Your task to perform on an android device: Go to battery settings Image 0: 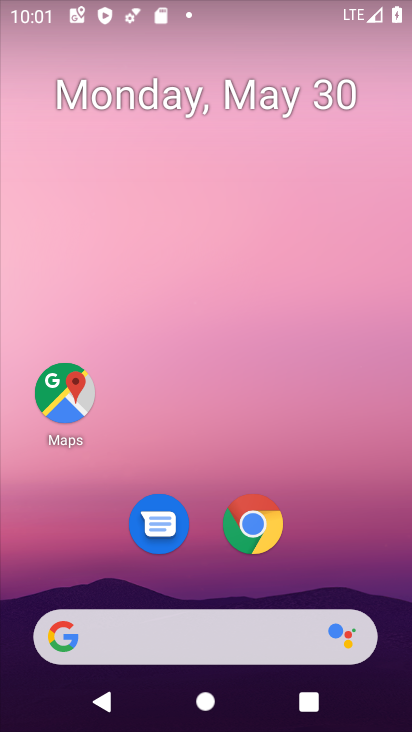
Step 0: drag from (219, 426) to (290, 0)
Your task to perform on an android device: Go to battery settings Image 1: 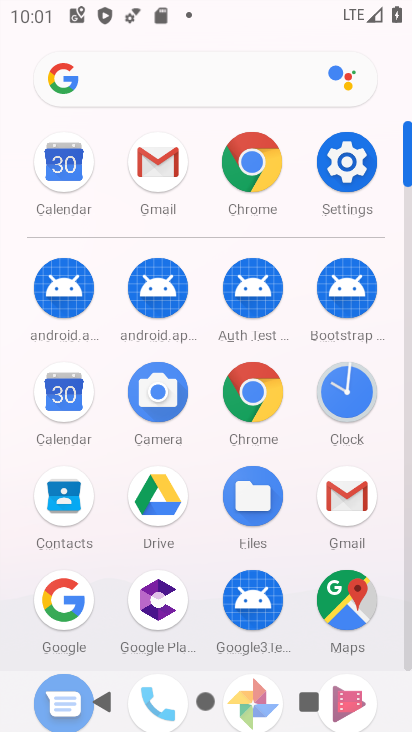
Step 1: click (344, 161)
Your task to perform on an android device: Go to battery settings Image 2: 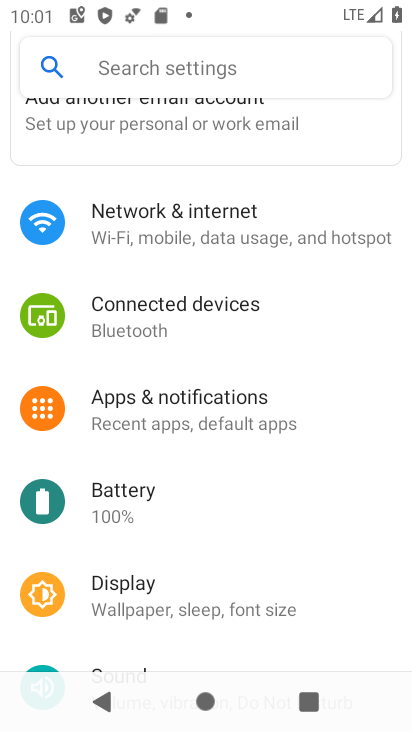
Step 2: click (176, 469)
Your task to perform on an android device: Go to battery settings Image 3: 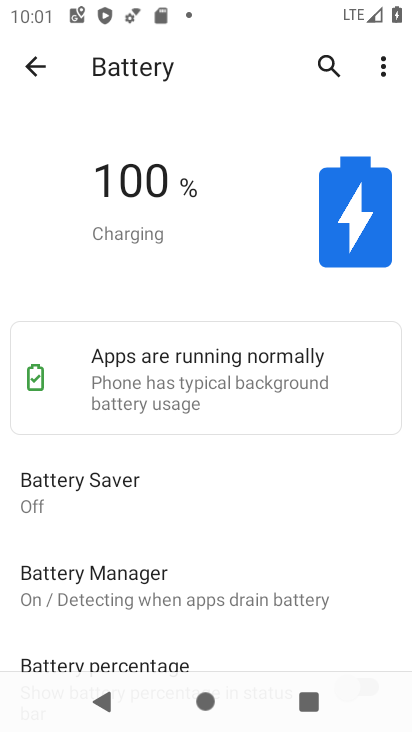
Step 3: task complete